Your task to perform on an android device: Go to Google maps Image 0: 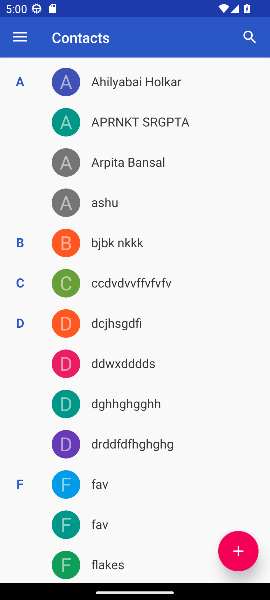
Step 0: press home button
Your task to perform on an android device: Go to Google maps Image 1: 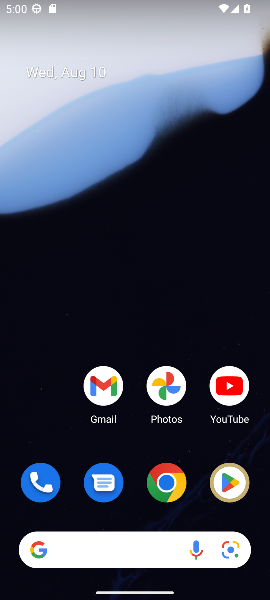
Step 1: drag from (52, 434) to (73, 66)
Your task to perform on an android device: Go to Google maps Image 2: 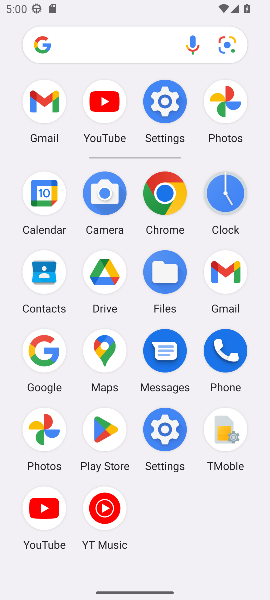
Step 2: click (102, 350)
Your task to perform on an android device: Go to Google maps Image 3: 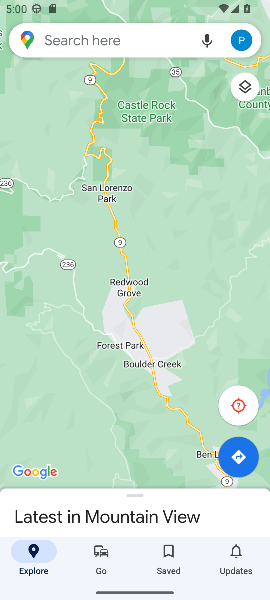
Step 3: task complete